Your task to perform on an android device: move an email to a new category in the gmail app Image 0: 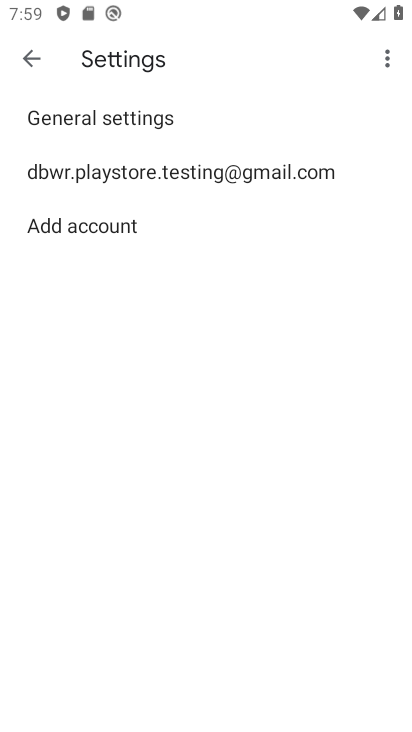
Step 0: press home button
Your task to perform on an android device: move an email to a new category in the gmail app Image 1: 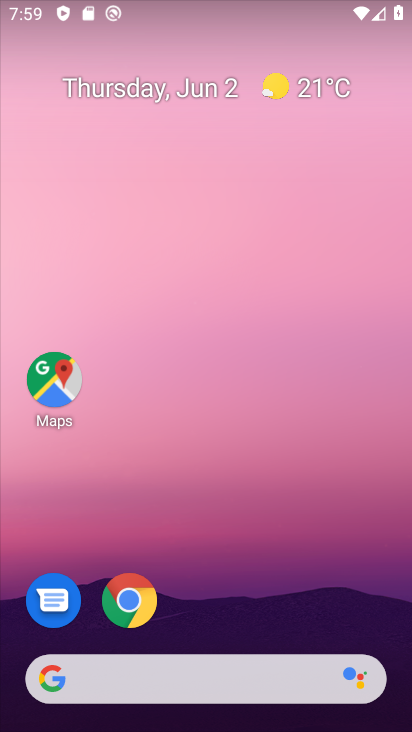
Step 1: drag from (202, 625) to (214, 123)
Your task to perform on an android device: move an email to a new category in the gmail app Image 2: 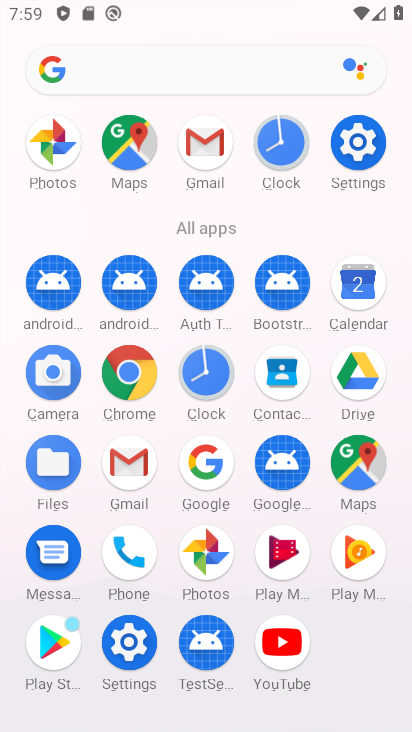
Step 2: click (214, 143)
Your task to perform on an android device: move an email to a new category in the gmail app Image 3: 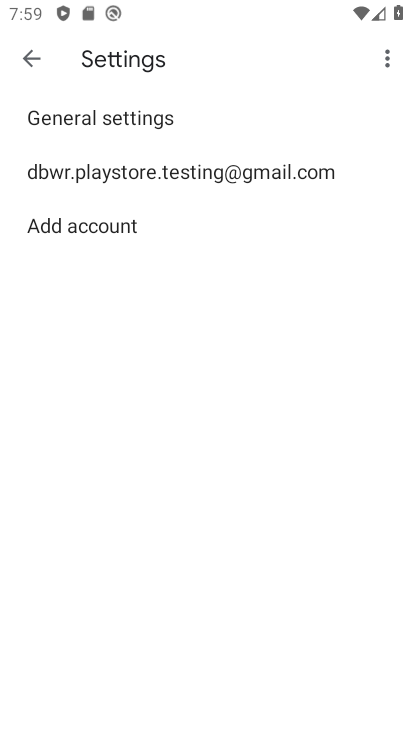
Step 3: click (40, 50)
Your task to perform on an android device: move an email to a new category in the gmail app Image 4: 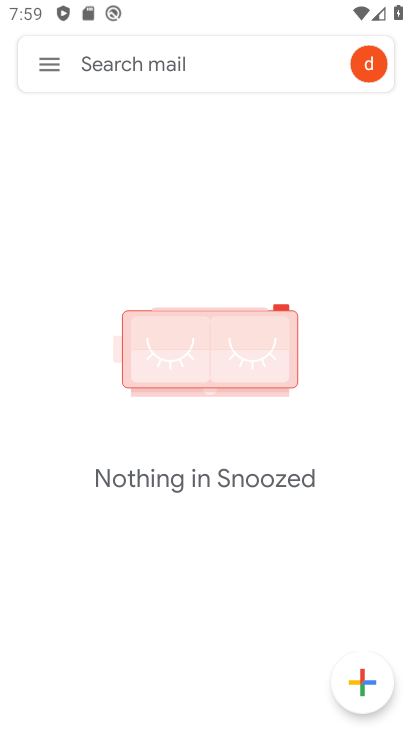
Step 4: click (55, 65)
Your task to perform on an android device: move an email to a new category in the gmail app Image 5: 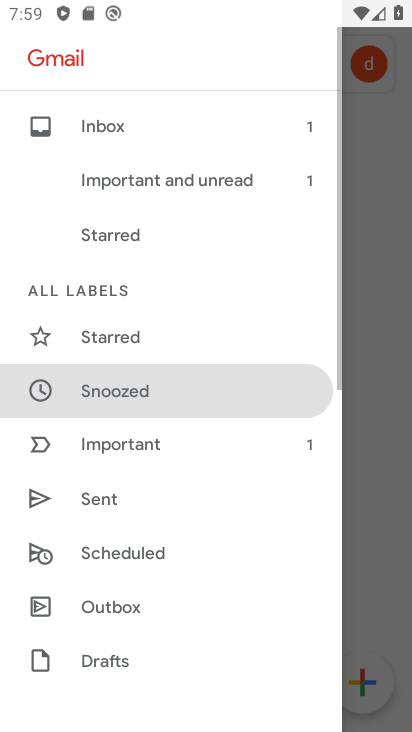
Step 5: drag from (182, 610) to (190, 194)
Your task to perform on an android device: move an email to a new category in the gmail app Image 6: 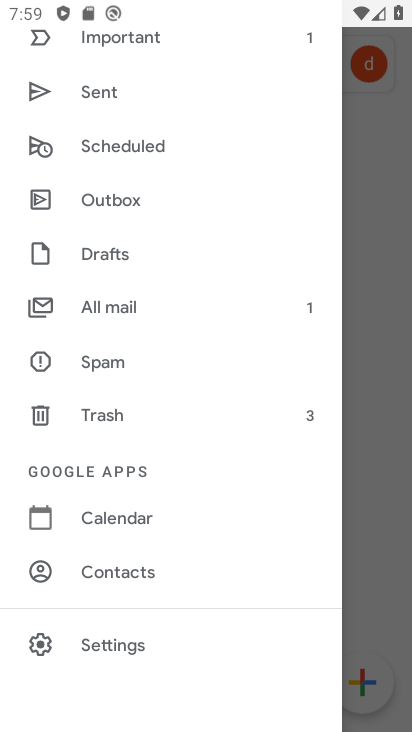
Step 6: click (129, 309)
Your task to perform on an android device: move an email to a new category in the gmail app Image 7: 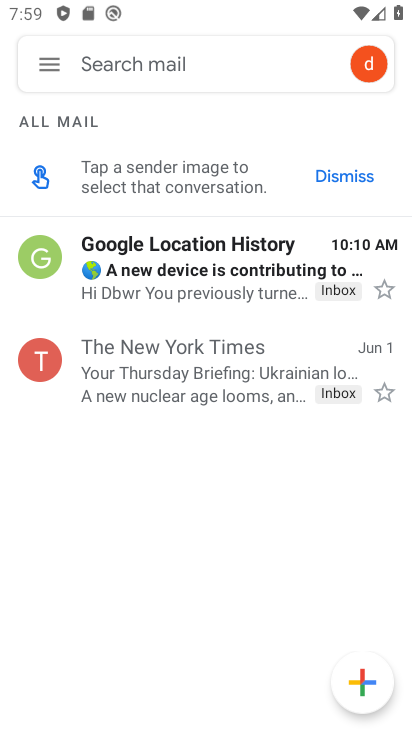
Step 7: click (268, 362)
Your task to perform on an android device: move an email to a new category in the gmail app Image 8: 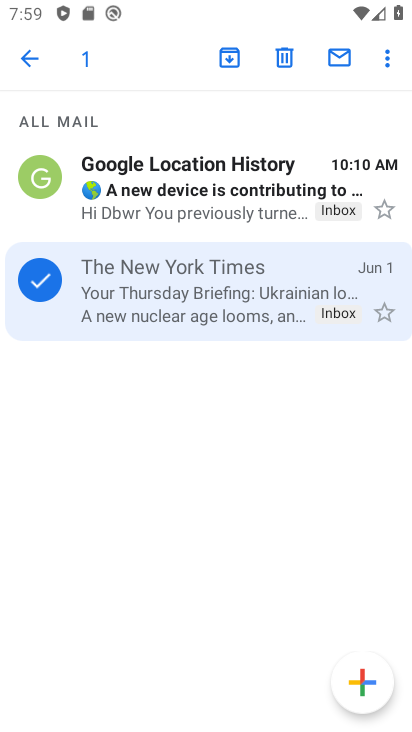
Step 8: click (378, 55)
Your task to perform on an android device: move an email to a new category in the gmail app Image 9: 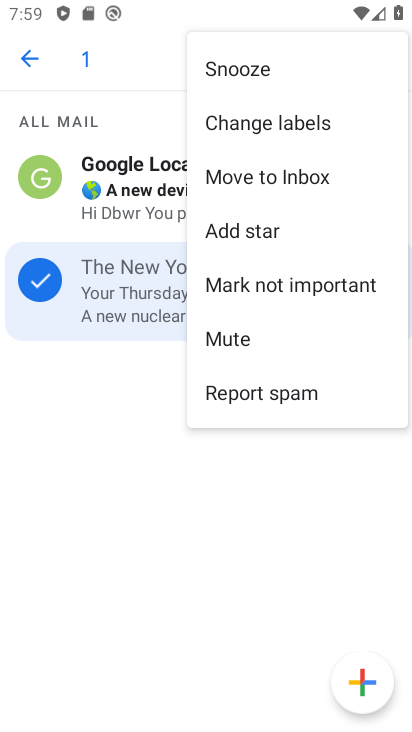
Step 9: click (281, 176)
Your task to perform on an android device: move an email to a new category in the gmail app Image 10: 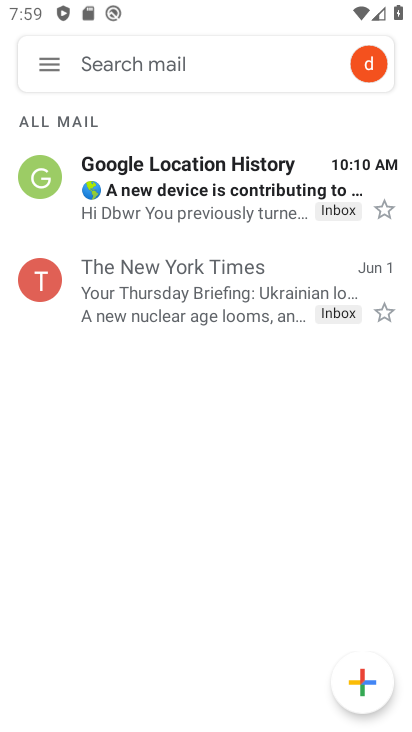
Step 10: task complete